Your task to perform on an android device: Open Google Maps and go to "Timeline" Image 0: 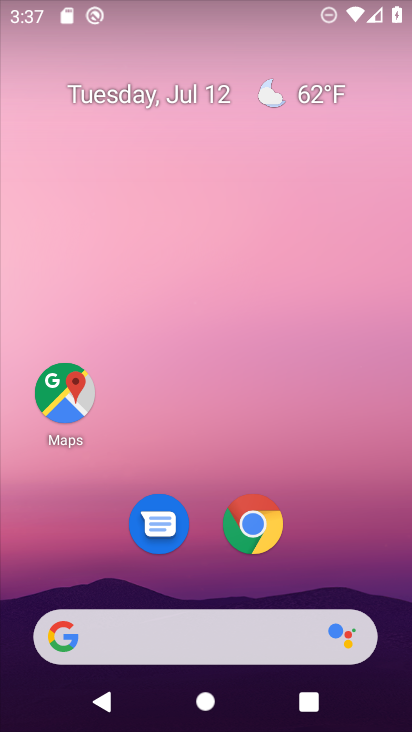
Step 0: click (67, 390)
Your task to perform on an android device: Open Google Maps and go to "Timeline" Image 1: 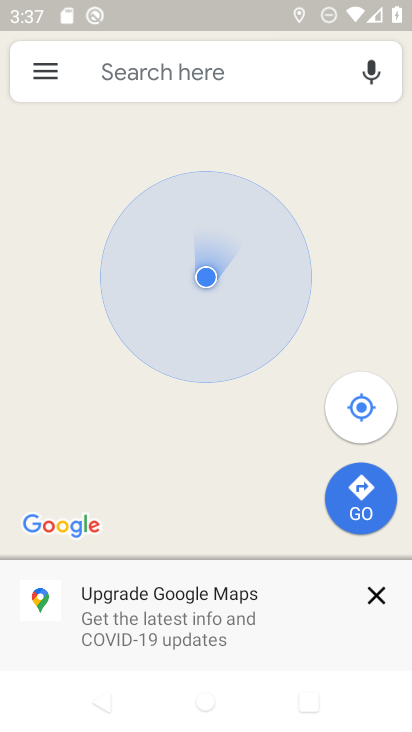
Step 1: click (48, 77)
Your task to perform on an android device: Open Google Maps and go to "Timeline" Image 2: 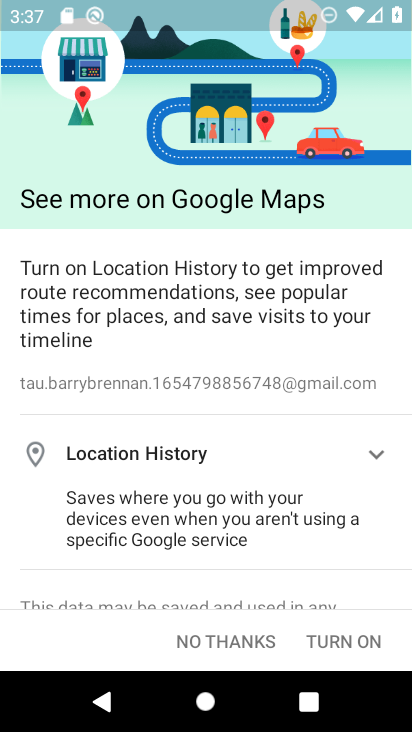
Step 2: click (255, 636)
Your task to perform on an android device: Open Google Maps and go to "Timeline" Image 3: 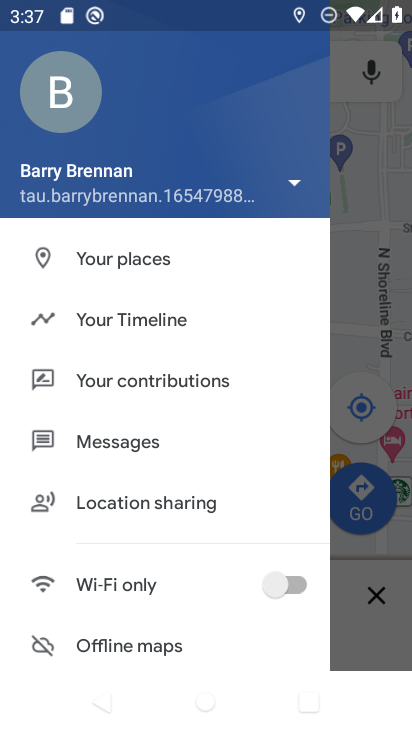
Step 3: click (167, 311)
Your task to perform on an android device: Open Google Maps and go to "Timeline" Image 4: 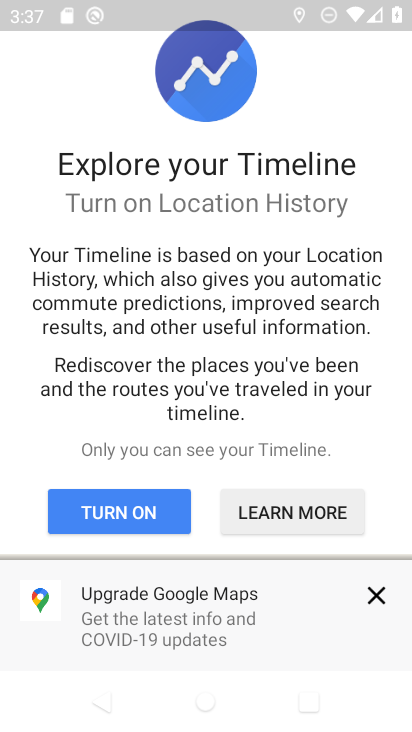
Step 4: click (159, 506)
Your task to perform on an android device: Open Google Maps and go to "Timeline" Image 5: 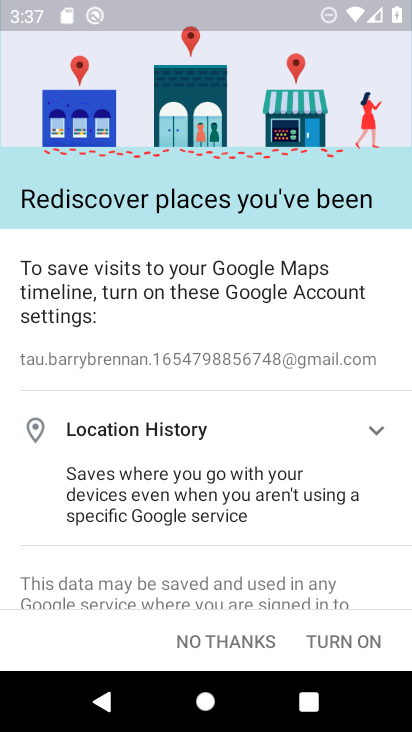
Step 5: click (341, 638)
Your task to perform on an android device: Open Google Maps and go to "Timeline" Image 6: 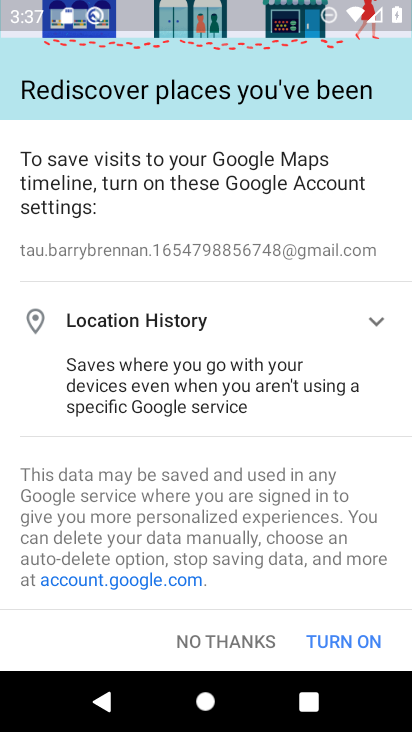
Step 6: click (341, 638)
Your task to perform on an android device: Open Google Maps and go to "Timeline" Image 7: 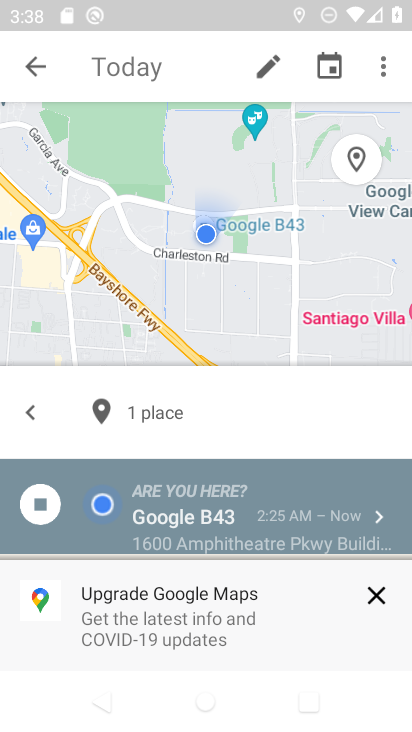
Step 7: task complete